Your task to perform on an android device: Go to notification settings Image 0: 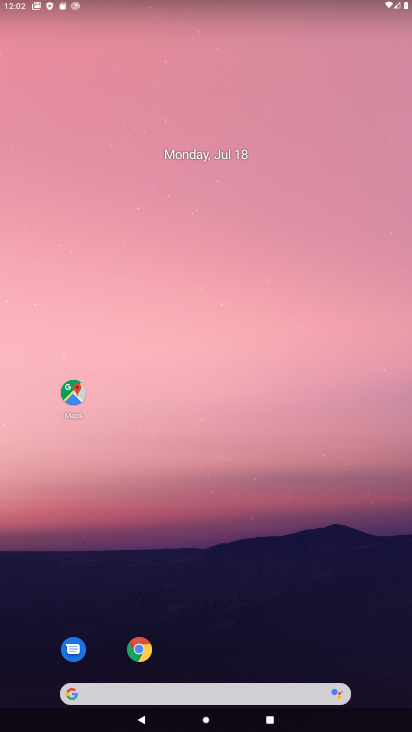
Step 0: drag from (388, 650) to (362, 174)
Your task to perform on an android device: Go to notification settings Image 1: 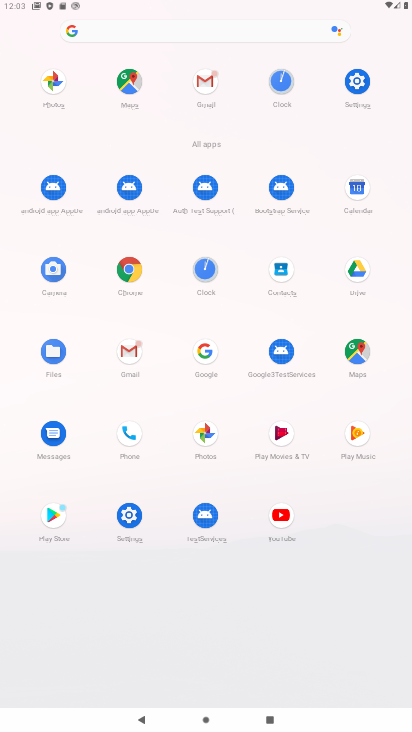
Step 1: click (127, 514)
Your task to perform on an android device: Go to notification settings Image 2: 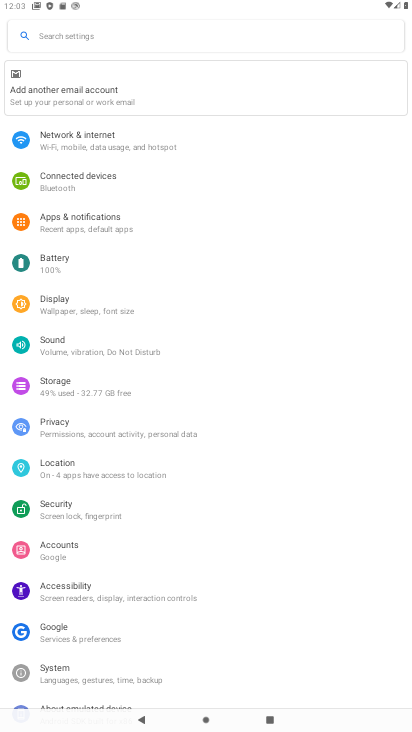
Step 2: click (86, 222)
Your task to perform on an android device: Go to notification settings Image 3: 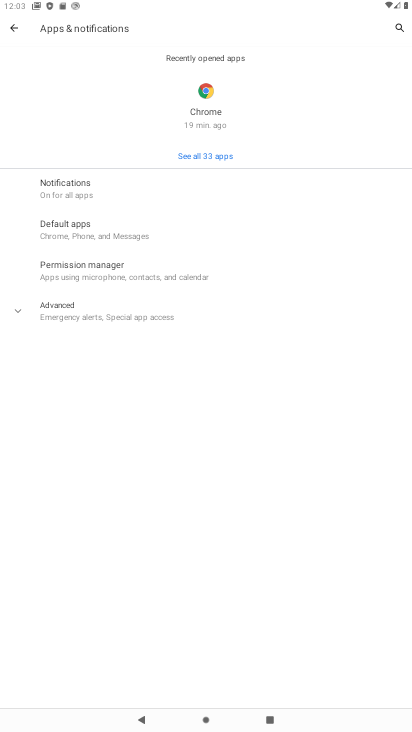
Step 3: click (56, 182)
Your task to perform on an android device: Go to notification settings Image 4: 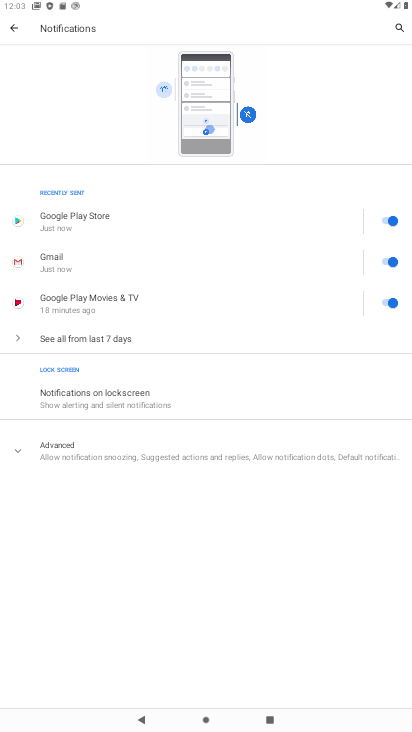
Step 4: click (18, 453)
Your task to perform on an android device: Go to notification settings Image 5: 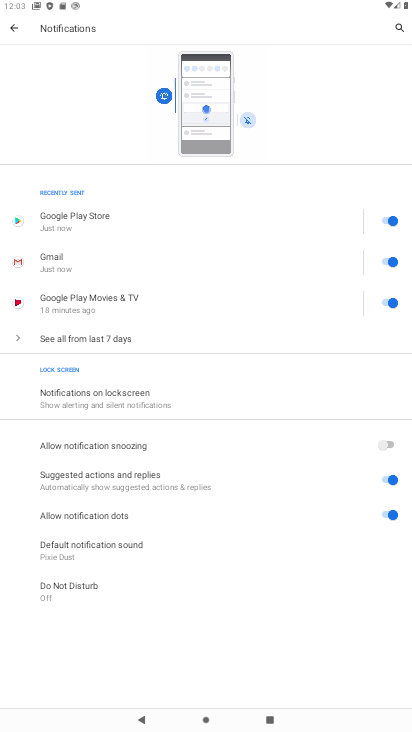
Step 5: task complete